Your task to perform on an android device: open app "Duolingo: language lessons" (install if not already installed) Image 0: 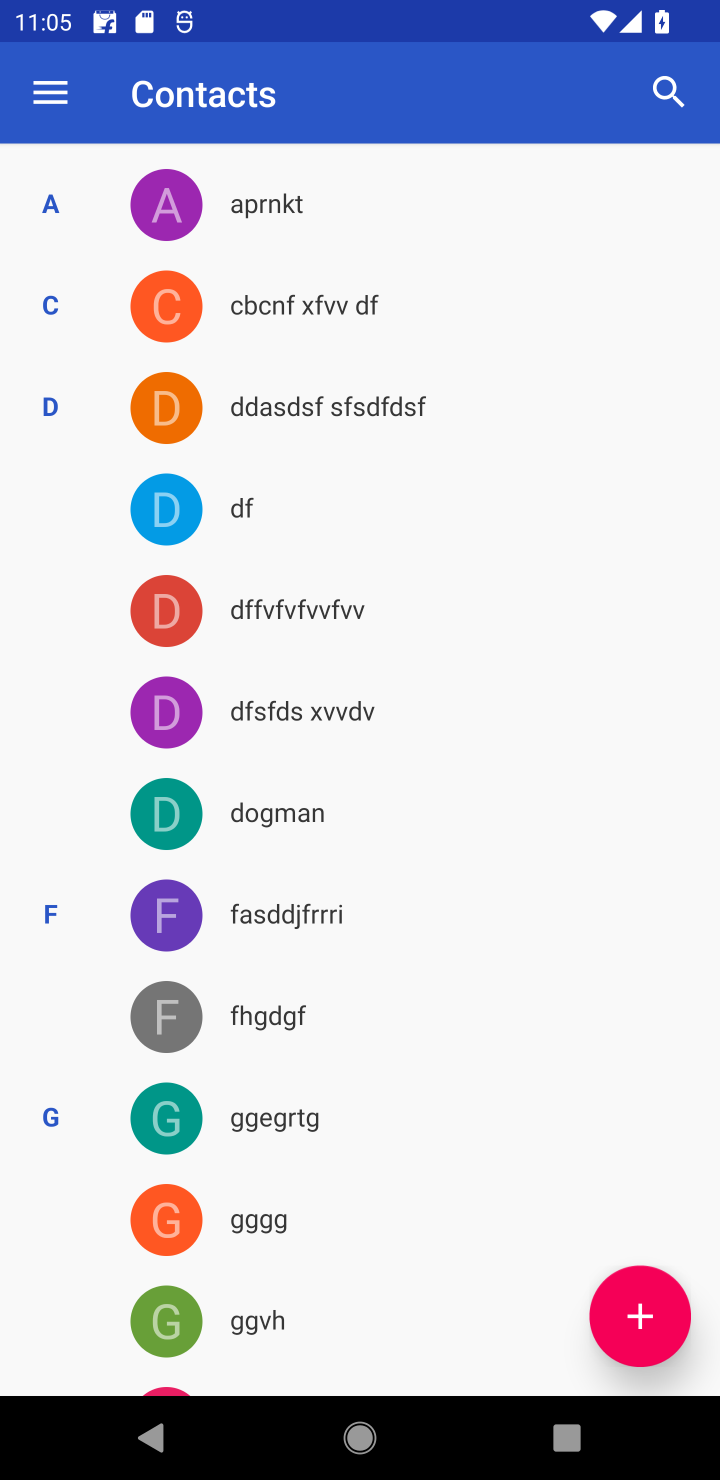
Step 0: press home button
Your task to perform on an android device: open app "Duolingo: language lessons" (install if not already installed) Image 1: 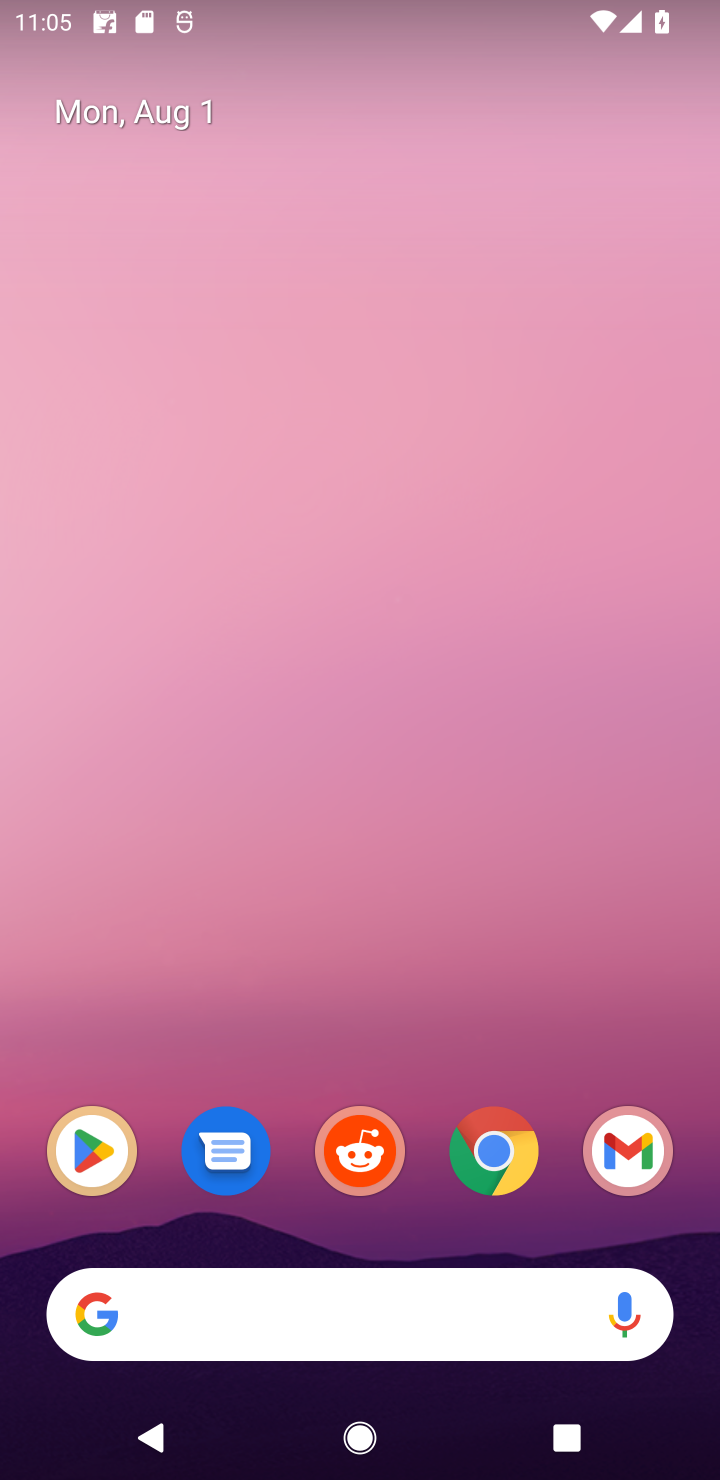
Step 1: click (58, 1162)
Your task to perform on an android device: open app "Duolingo: language lessons" (install if not already installed) Image 2: 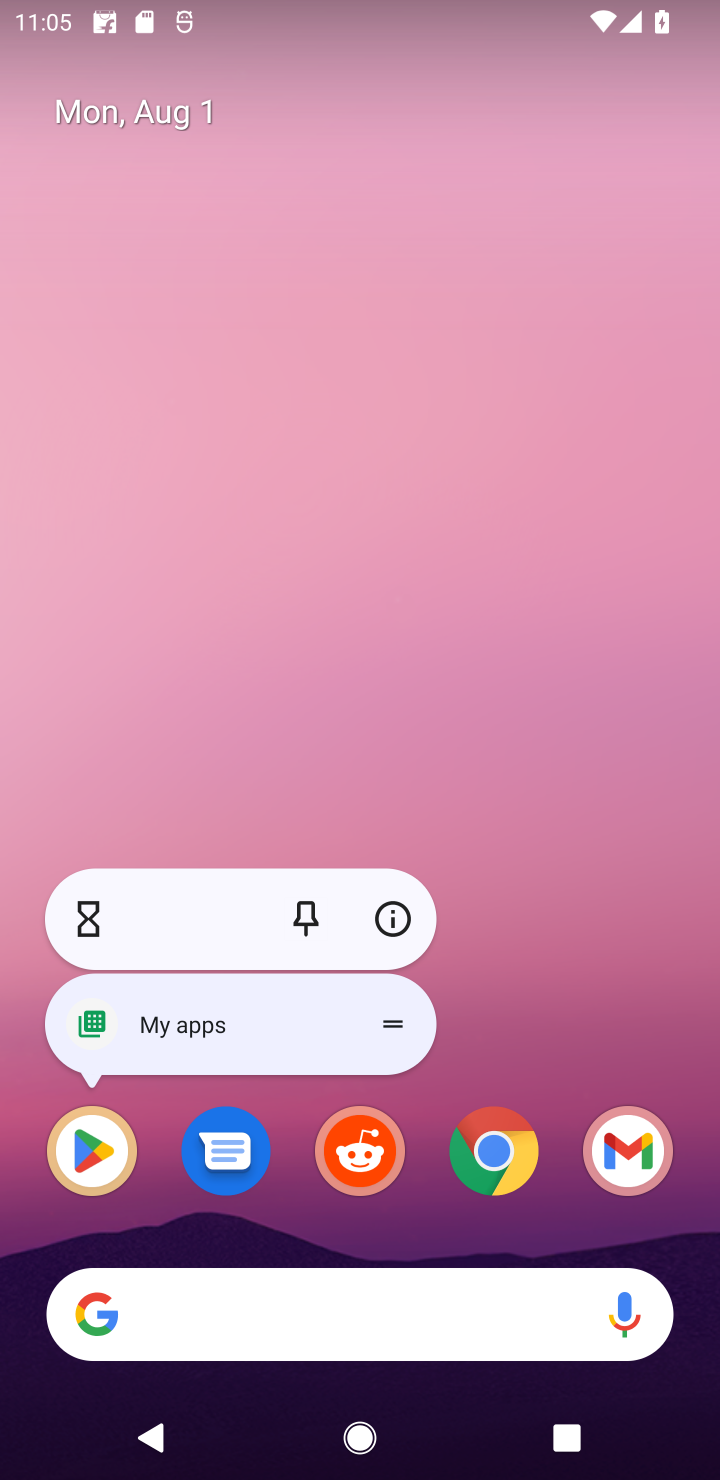
Step 2: click (73, 1162)
Your task to perform on an android device: open app "Duolingo: language lessons" (install if not already installed) Image 3: 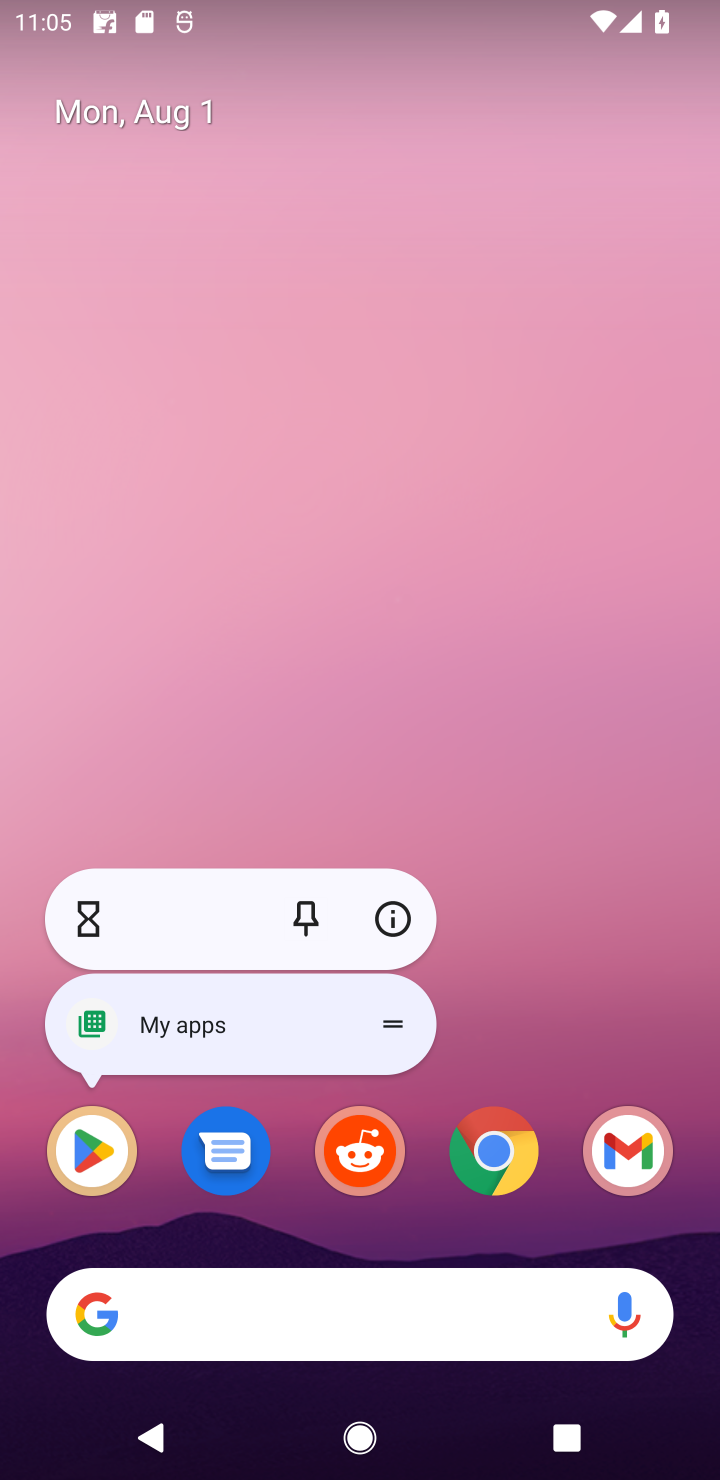
Step 3: click (73, 1162)
Your task to perform on an android device: open app "Duolingo: language lessons" (install if not already installed) Image 4: 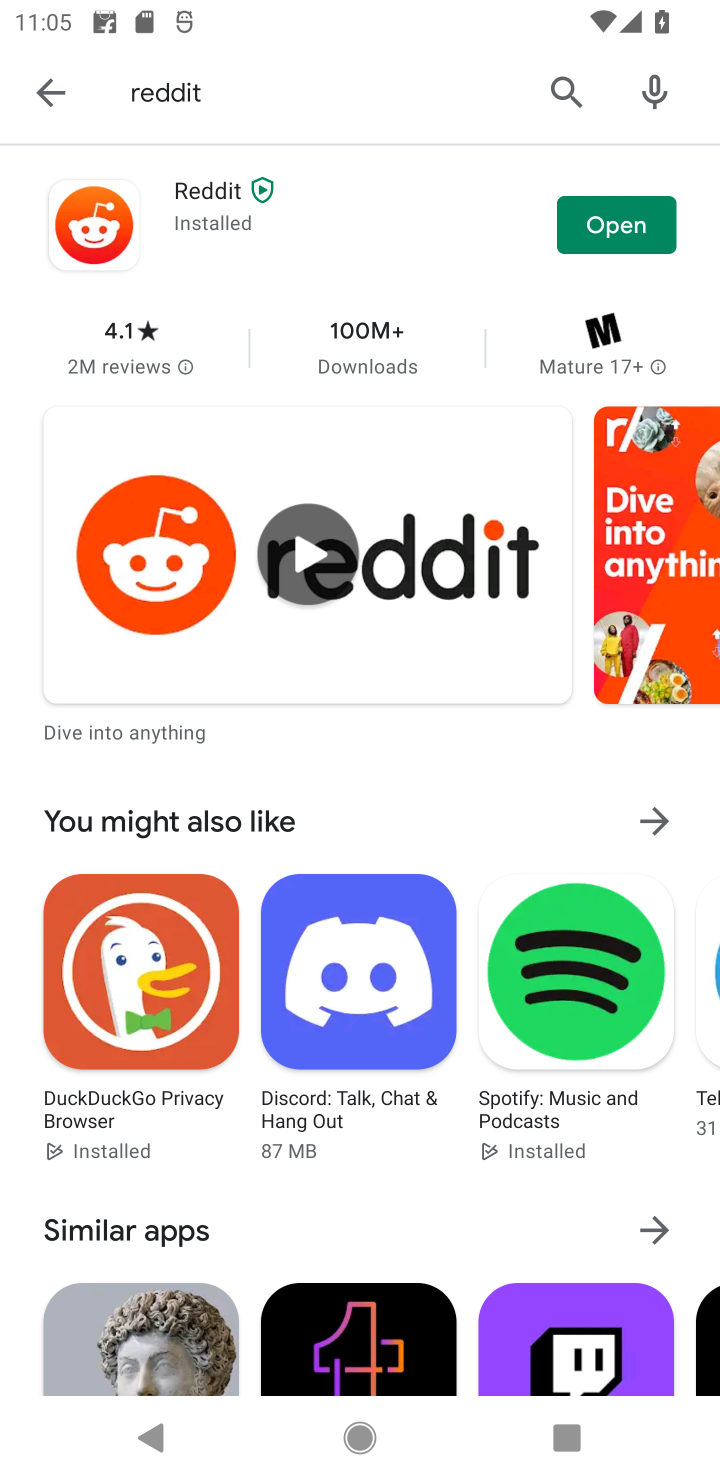
Step 4: click (619, 105)
Your task to perform on an android device: open app "Duolingo: language lessons" (install if not already installed) Image 5: 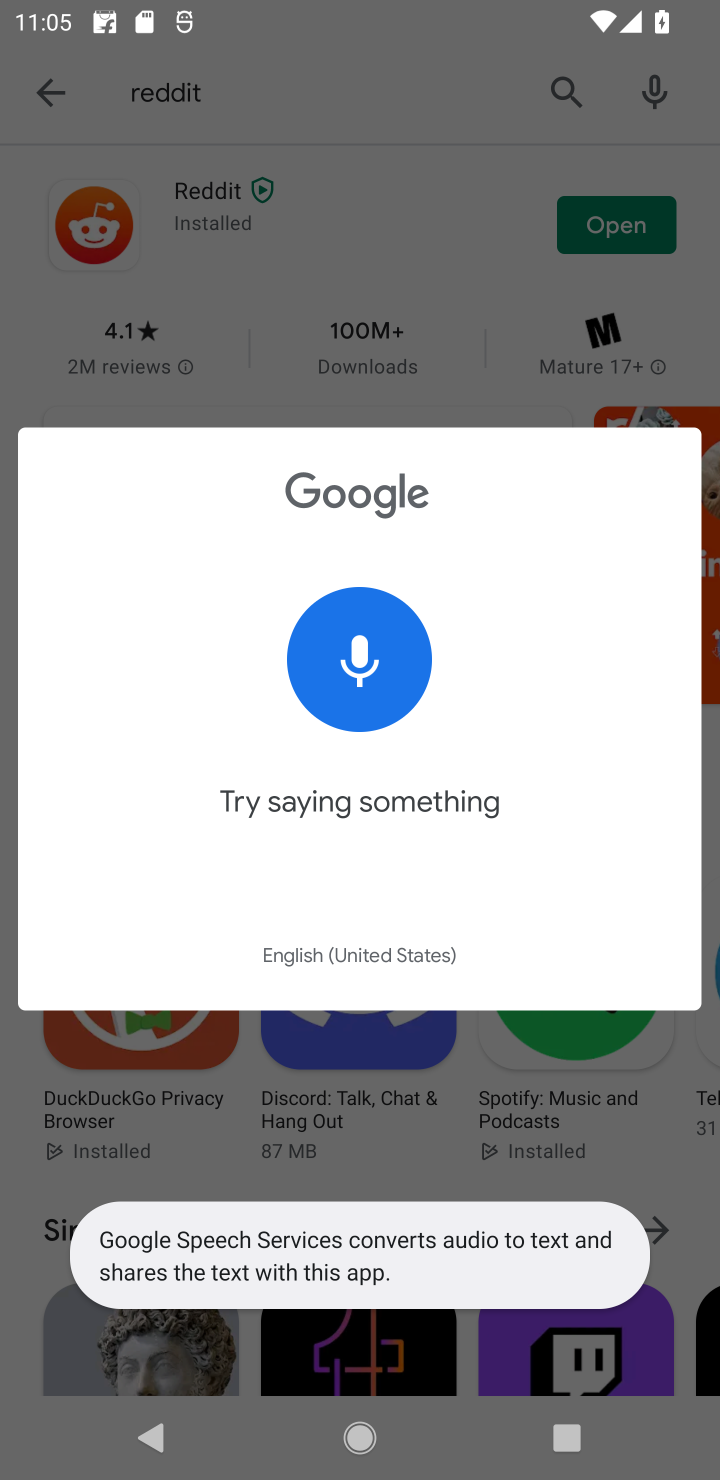
Step 5: click (510, 159)
Your task to perform on an android device: open app "Duolingo: language lessons" (install if not already installed) Image 6: 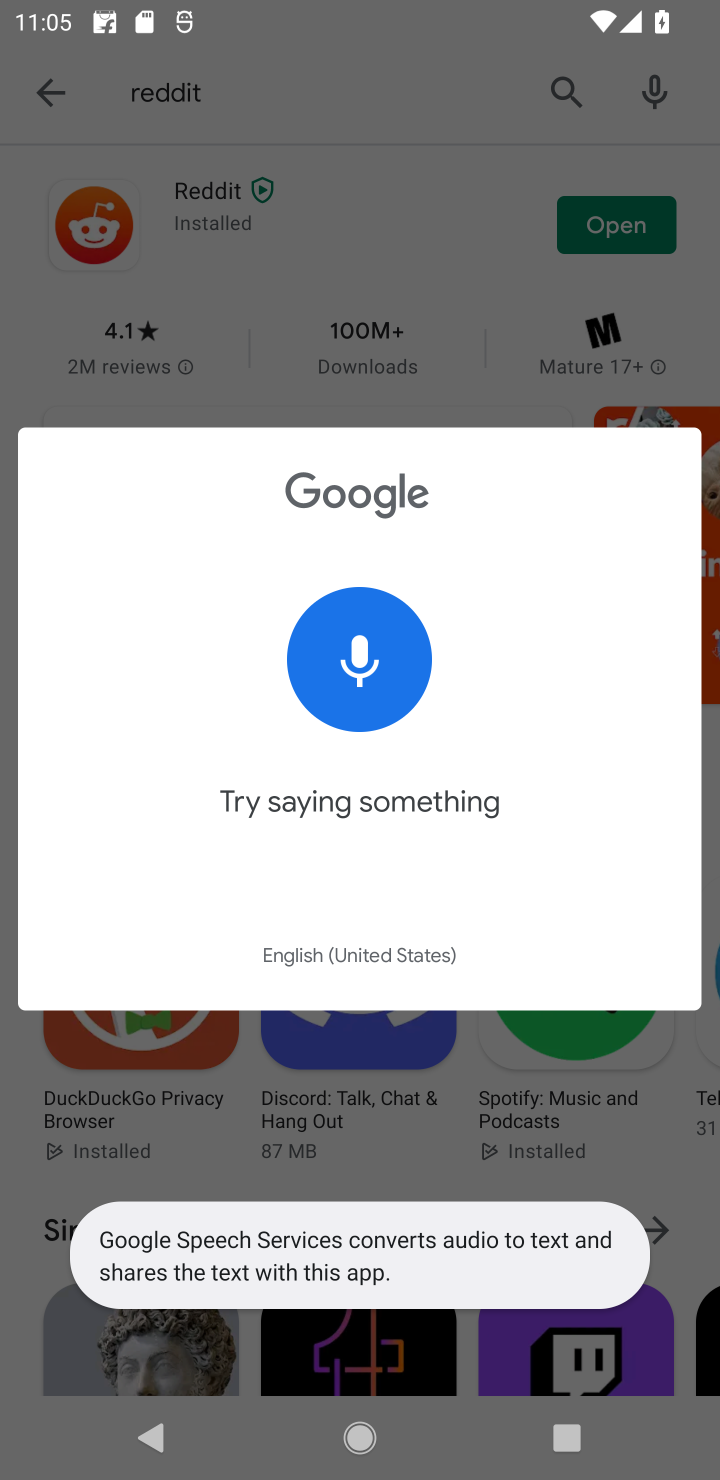
Step 6: click (540, 113)
Your task to perform on an android device: open app "Duolingo: language lessons" (install if not already installed) Image 7: 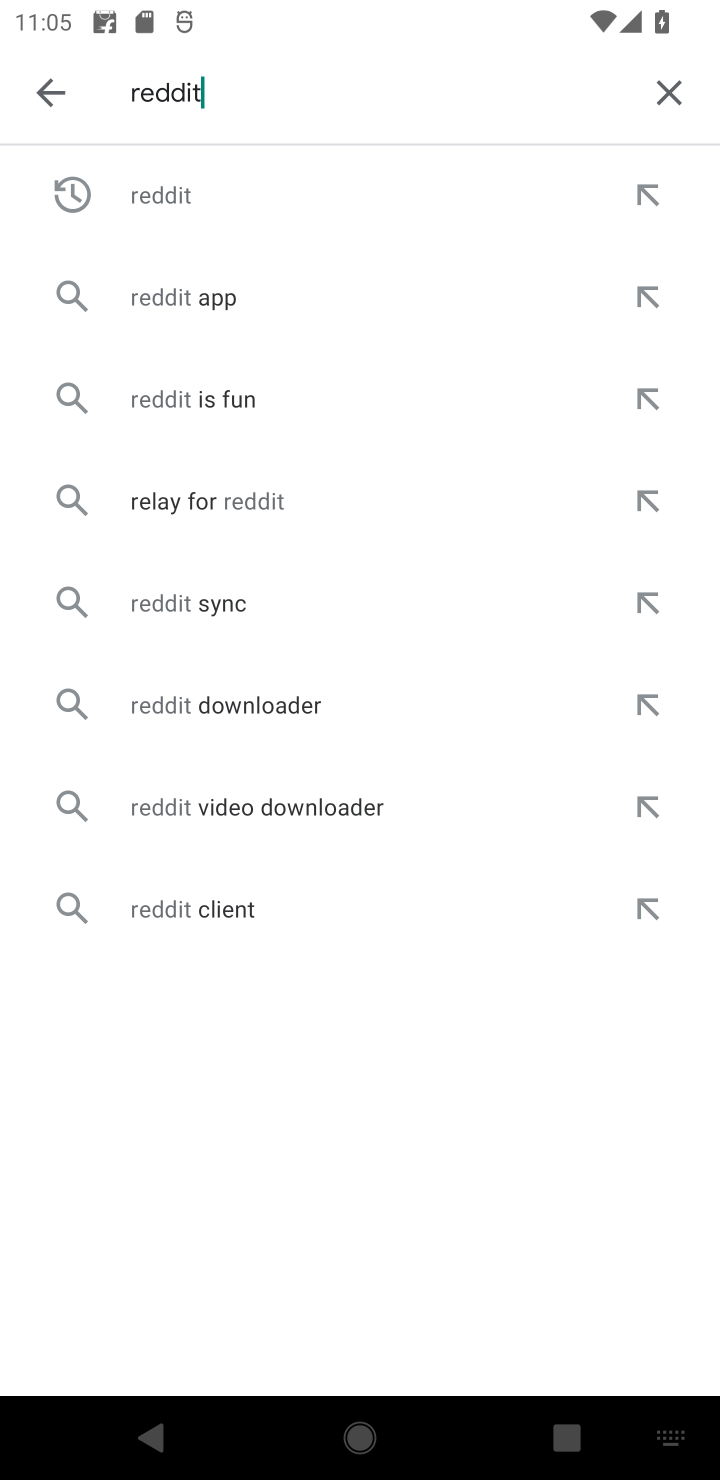
Step 7: click (564, 90)
Your task to perform on an android device: open app "Duolingo: language lessons" (install if not already installed) Image 8: 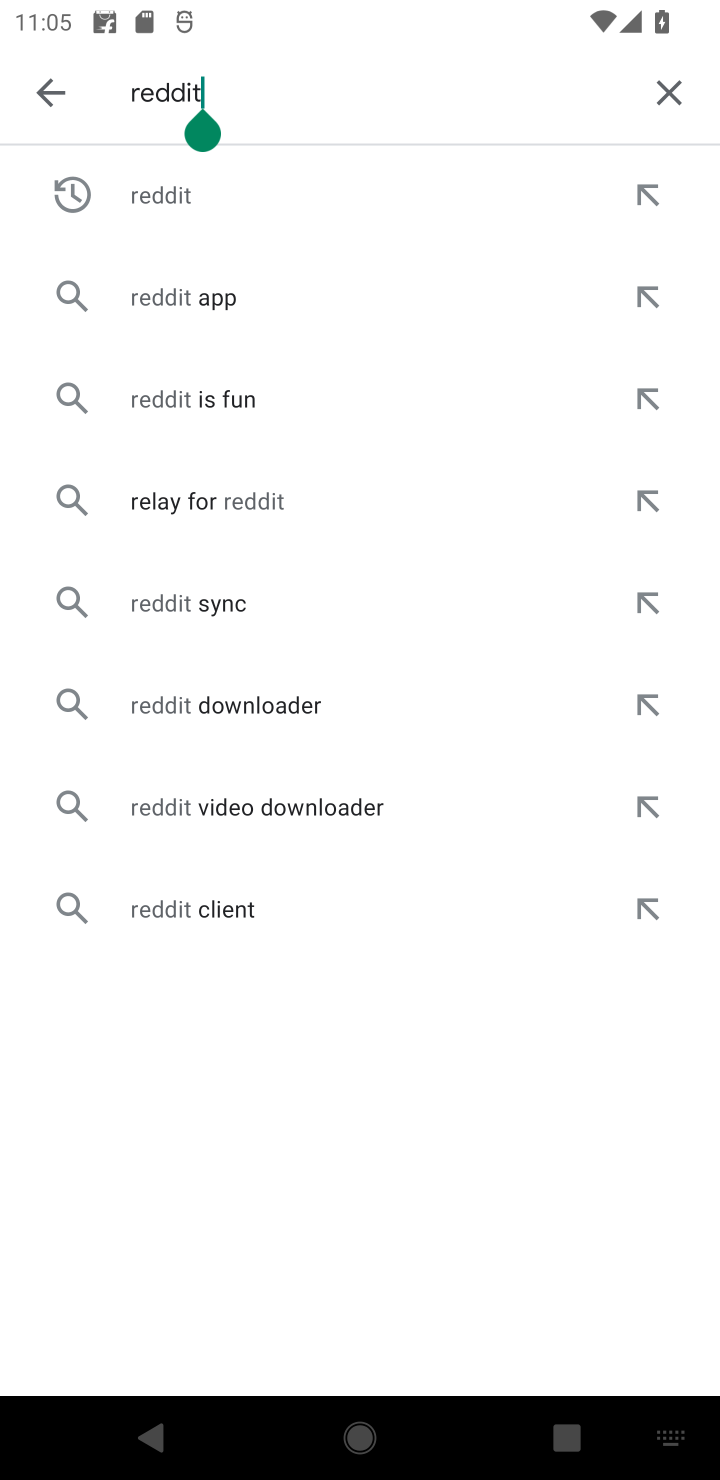
Step 8: click (643, 97)
Your task to perform on an android device: open app "Duolingo: language lessons" (install if not already installed) Image 9: 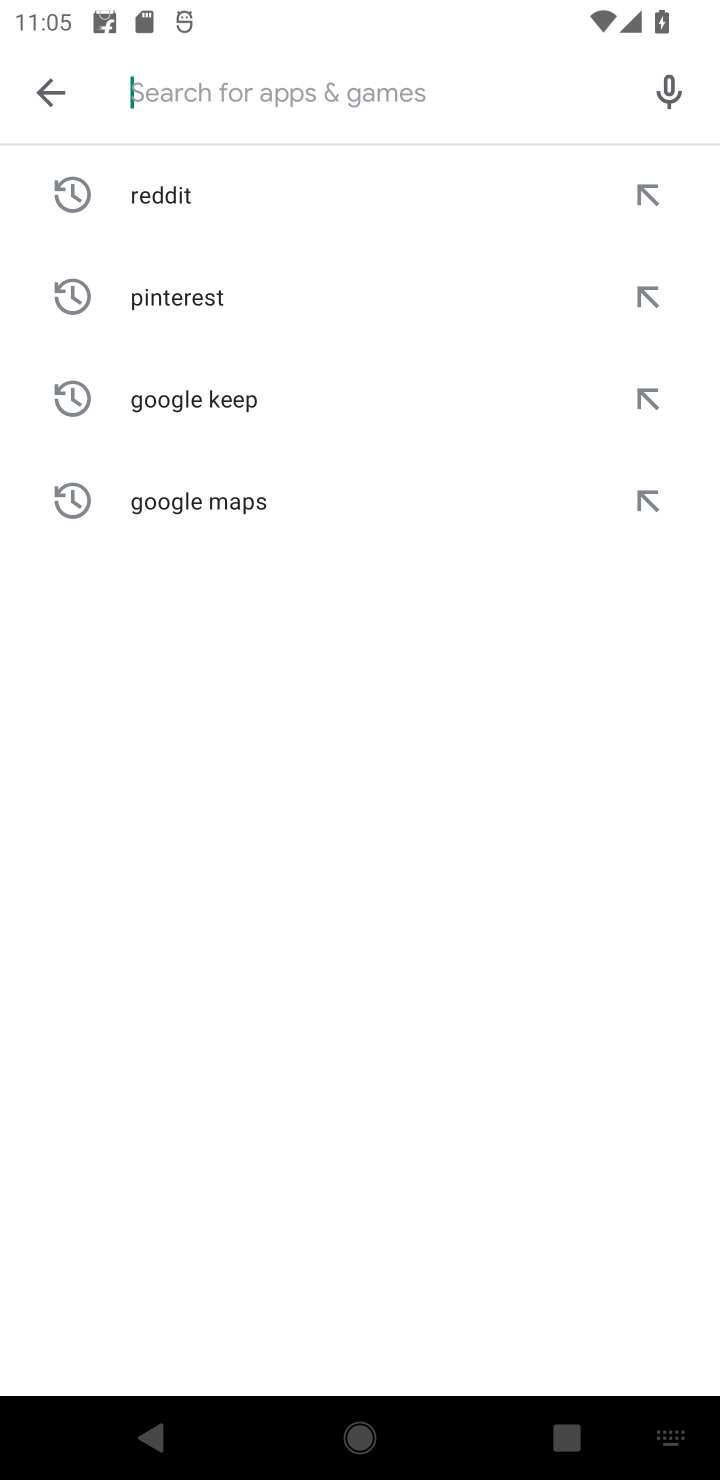
Step 9: type "Duolingo: language lessons"
Your task to perform on an android device: open app "Duolingo: language lessons" (install if not already installed) Image 10: 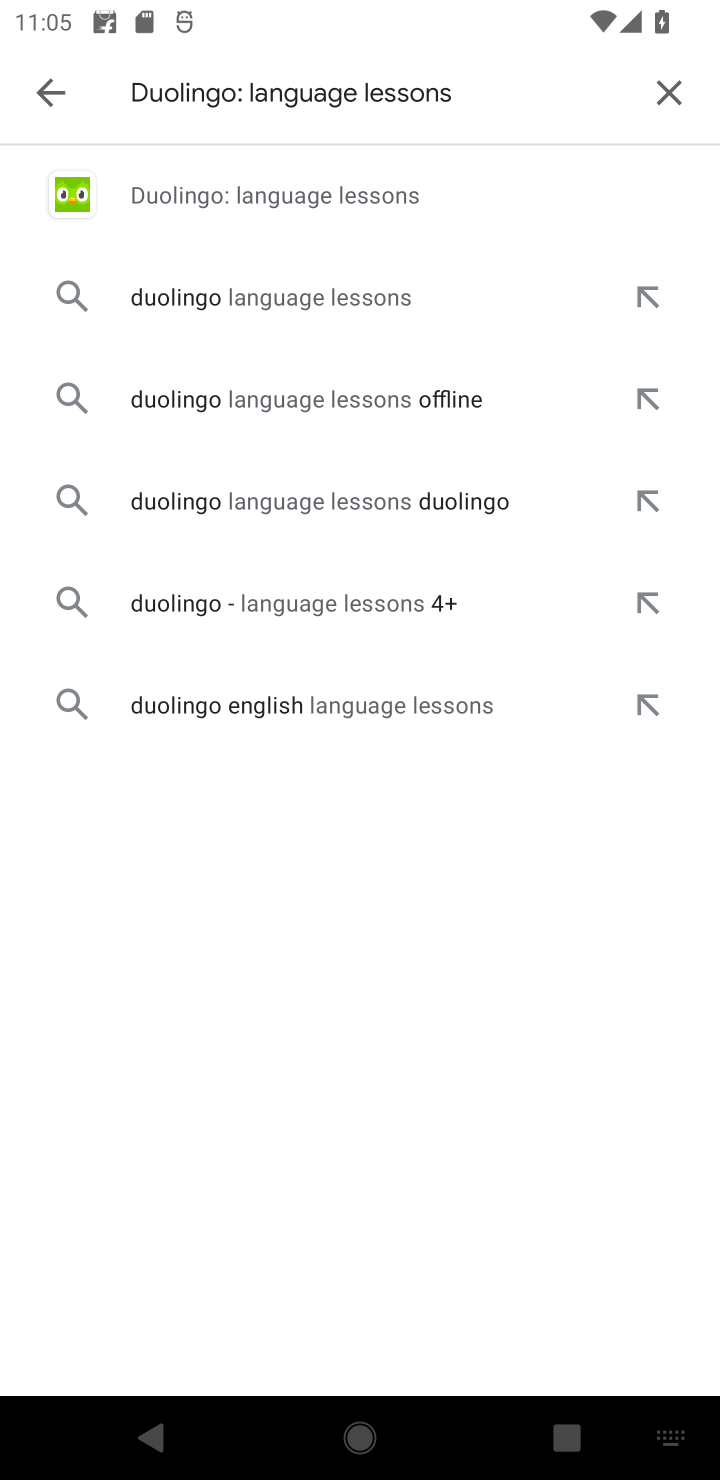
Step 10: click (261, 207)
Your task to perform on an android device: open app "Duolingo: language lessons" (install if not already installed) Image 11: 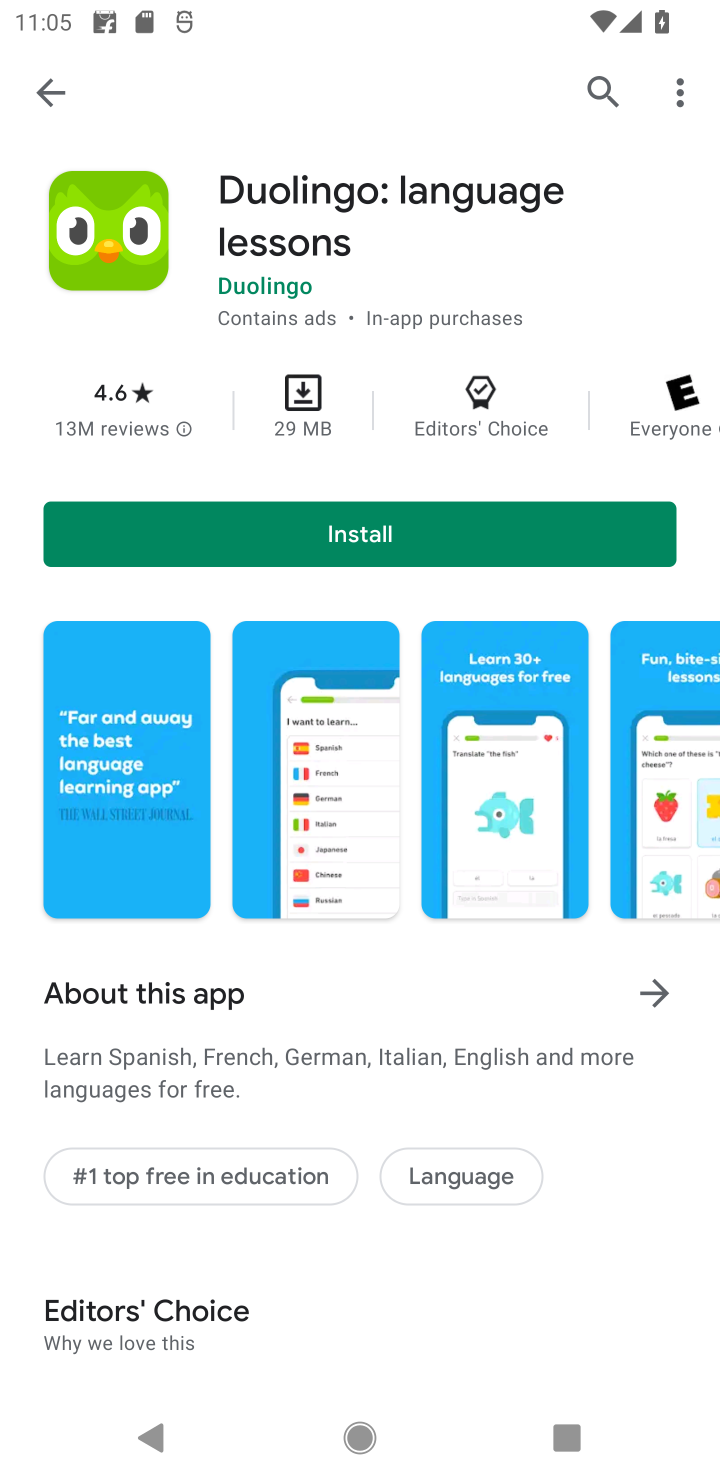
Step 11: click (392, 525)
Your task to perform on an android device: open app "Duolingo: language lessons" (install if not already installed) Image 12: 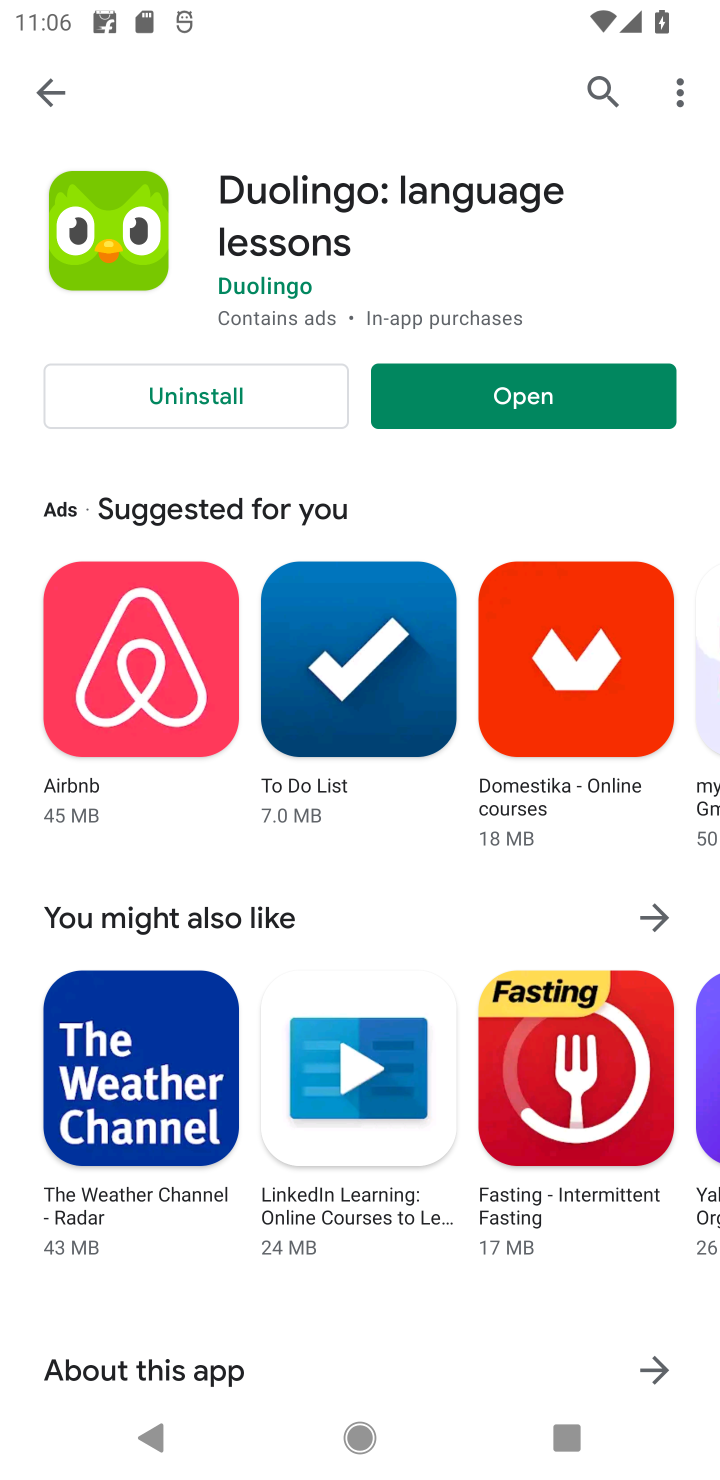
Step 12: click (588, 393)
Your task to perform on an android device: open app "Duolingo: language lessons" (install if not already installed) Image 13: 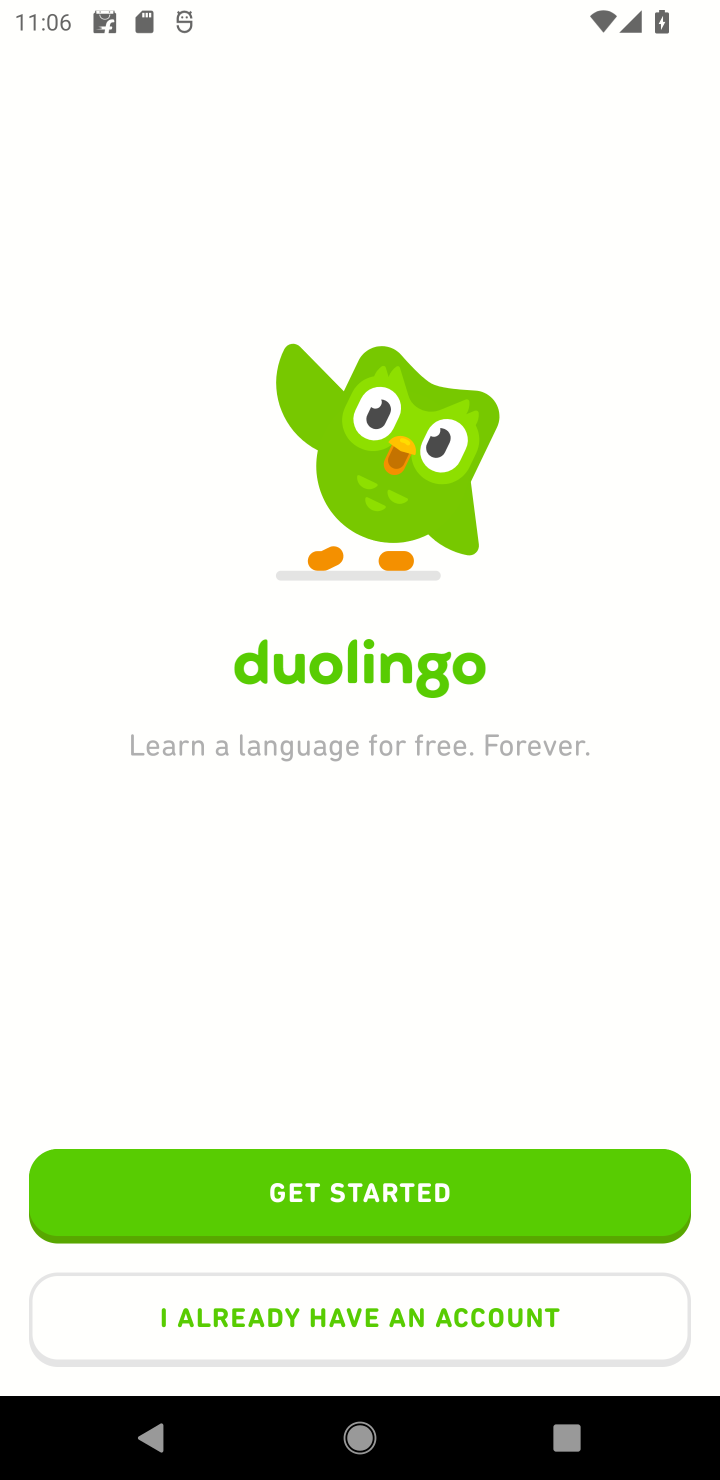
Step 13: task complete